Your task to perform on an android device: Open my contact list Image 0: 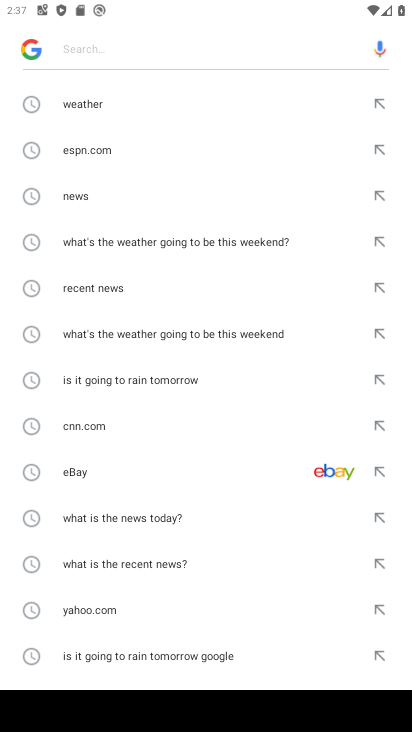
Step 0: press home button
Your task to perform on an android device: Open my contact list Image 1: 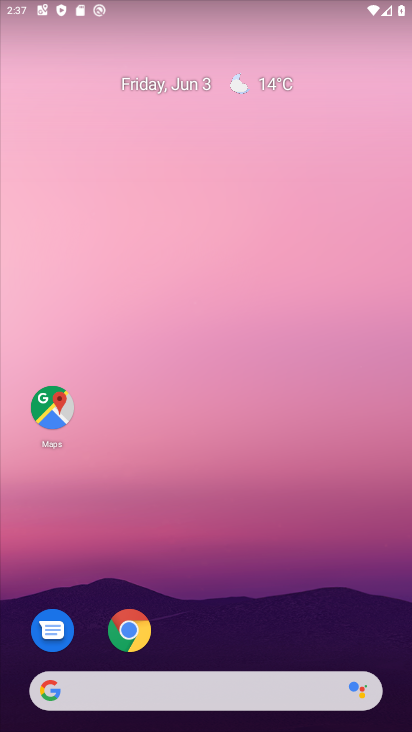
Step 1: drag from (270, 619) to (201, 125)
Your task to perform on an android device: Open my contact list Image 2: 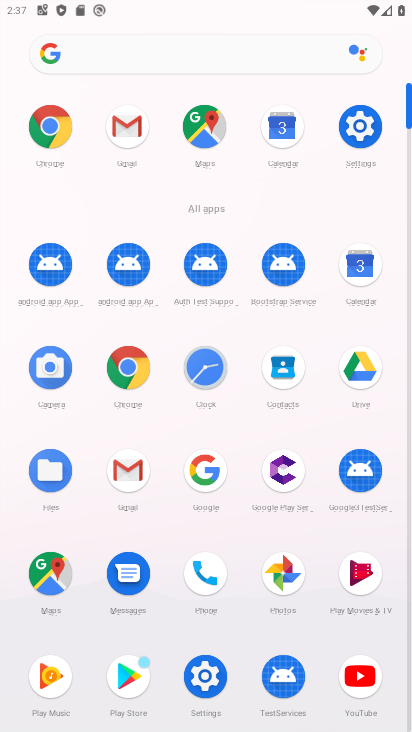
Step 2: click (278, 358)
Your task to perform on an android device: Open my contact list Image 3: 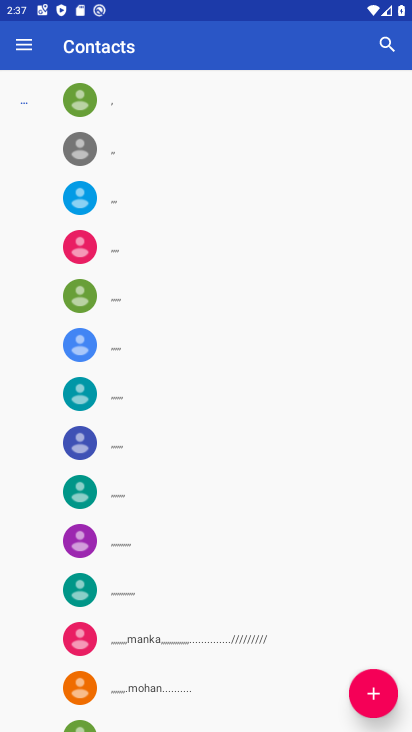
Step 3: task complete